Your task to perform on an android device: Open the stopwatch Image 0: 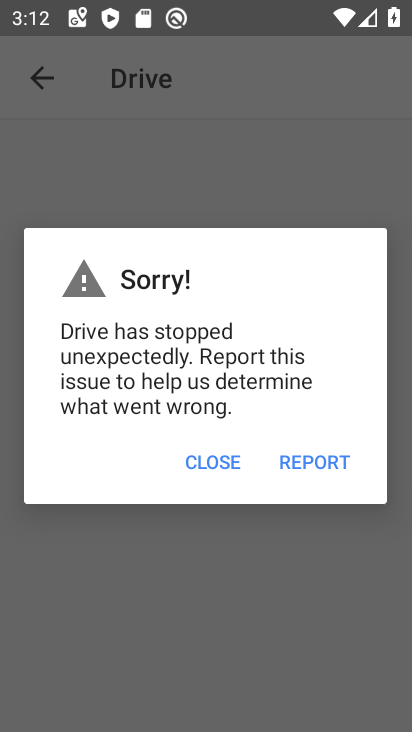
Step 0: press home button
Your task to perform on an android device: Open the stopwatch Image 1: 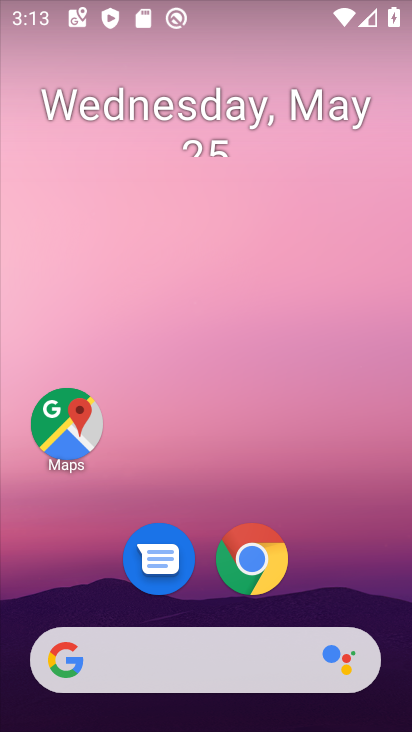
Step 1: drag from (206, 610) to (234, 72)
Your task to perform on an android device: Open the stopwatch Image 2: 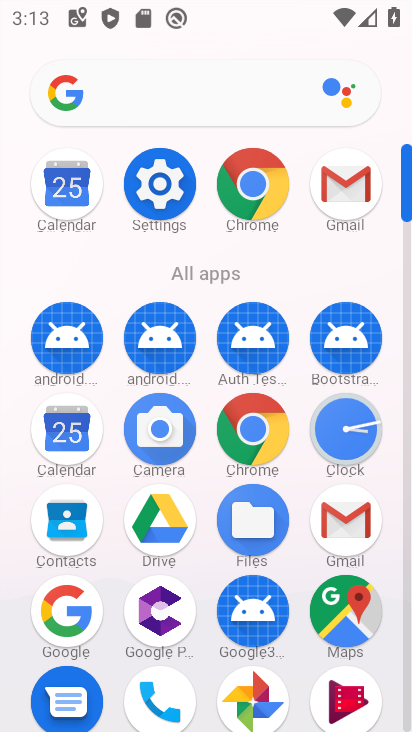
Step 2: click (341, 419)
Your task to perform on an android device: Open the stopwatch Image 3: 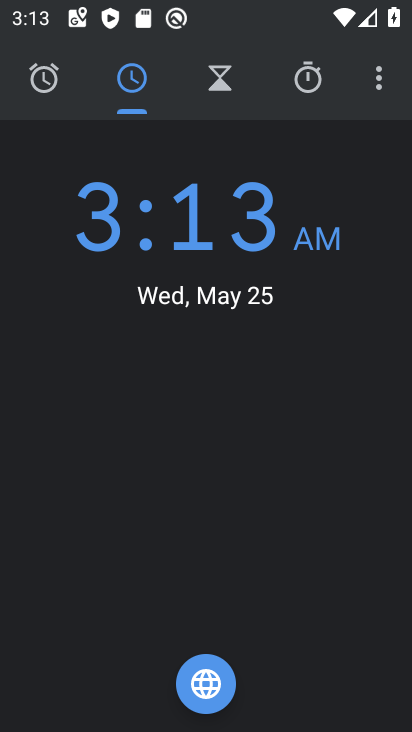
Step 3: click (305, 72)
Your task to perform on an android device: Open the stopwatch Image 4: 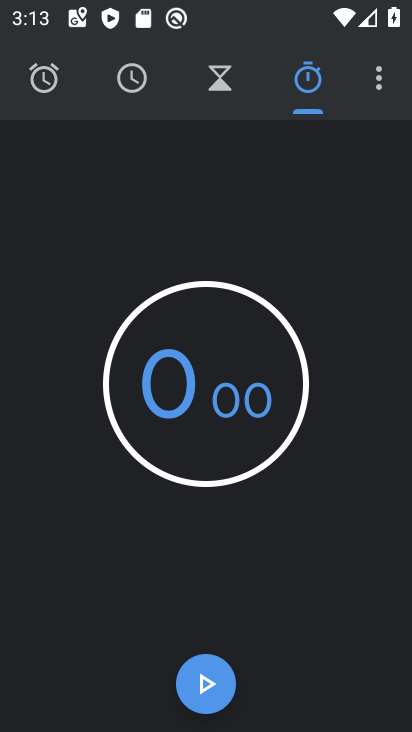
Step 4: click (202, 677)
Your task to perform on an android device: Open the stopwatch Image 5: 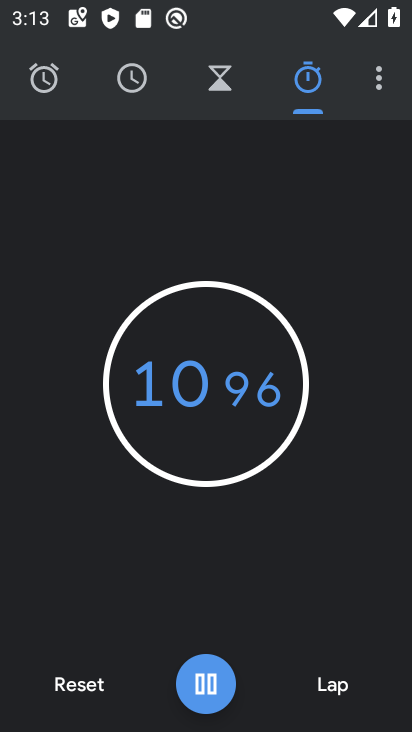
Step 5: task complete